Your task to perform on an android device: see tabs open on other devices in the chrome app Image 0: 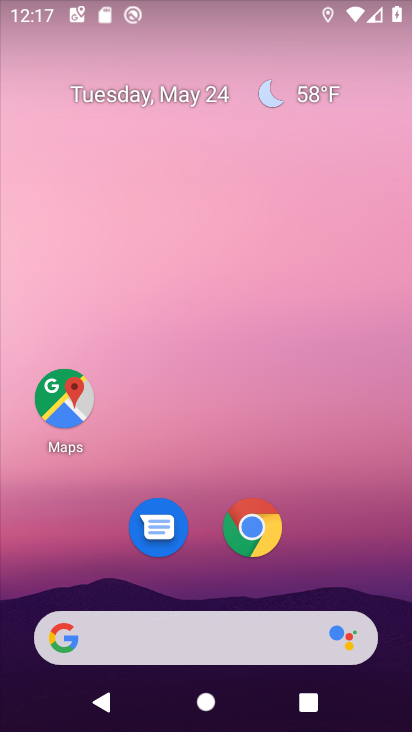
Step 0: click (260, 520)
Your task to perform on an android device: see tabs open on other devices in the chrome app Image 1: 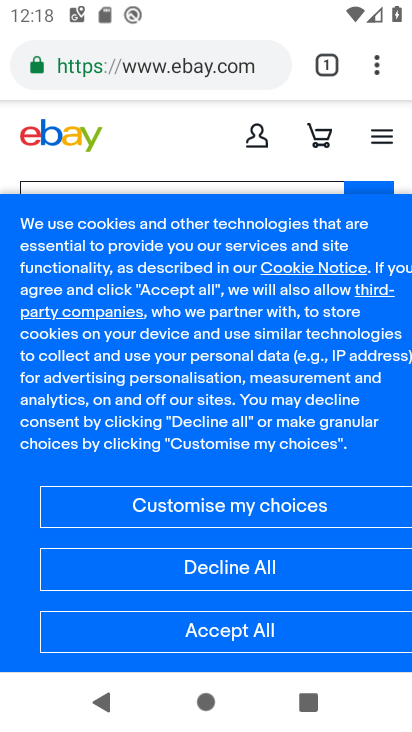
Step 1: click (376, 55)
Your task to perform on an android device: see tabs open on other devices in the chrome app Image 2: 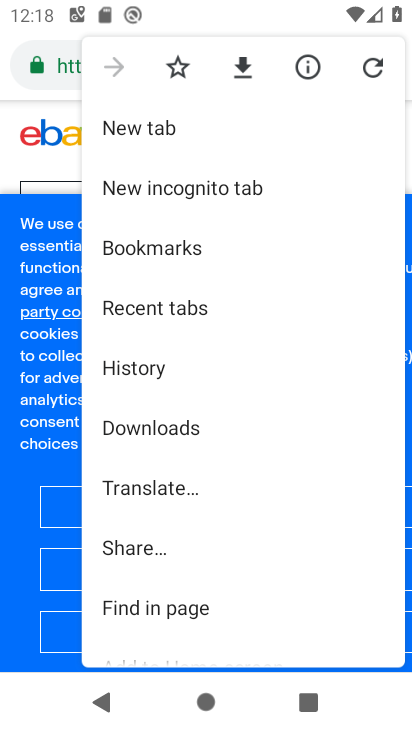
Step 2: click (180, 317)
Your task to perform on an android device: see tabs open on other devices in the chrome app Image 3: 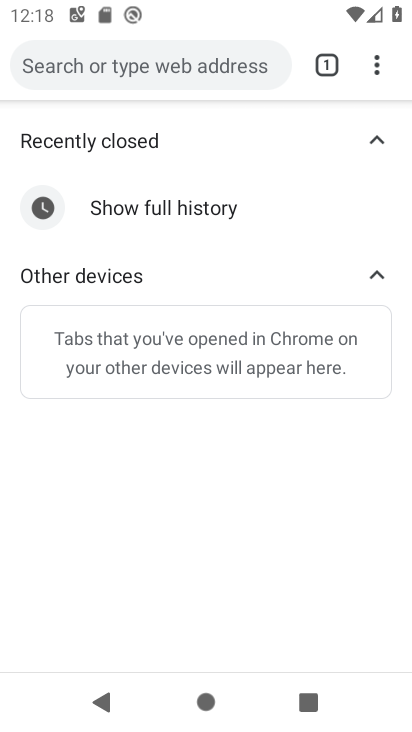
Step 3: task complete